Your task to perform on an android device: Go to accessibility settings Image 0: 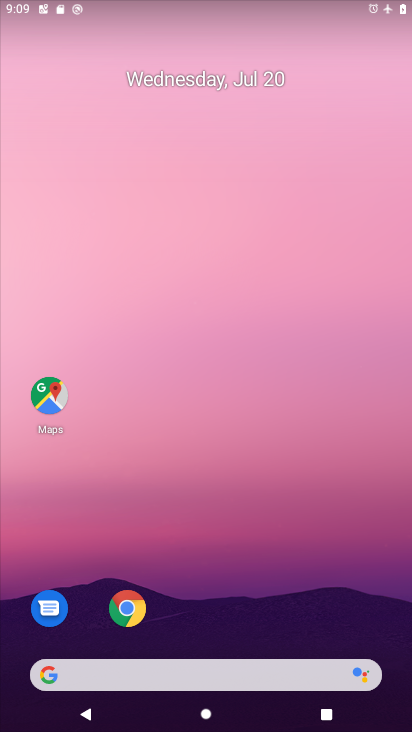
Step 0: drag from (211, 650) to (206, 180)
Your task to perform on an android device: Go to accessibility settings Image 1: 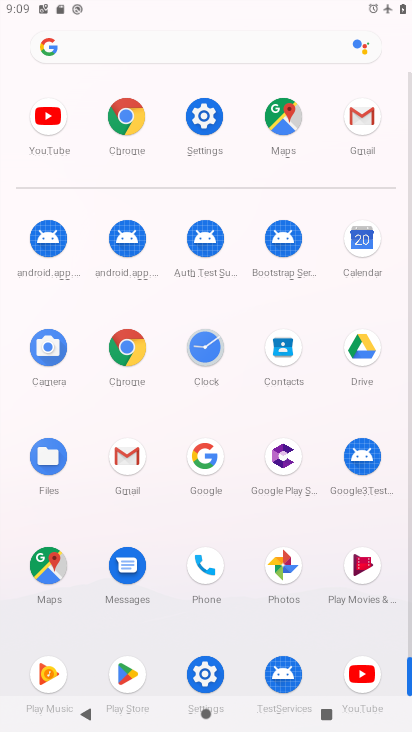
Step 1: click (209, 110)
Your task to perform on an android device: Go to accessibility settings Image 2: 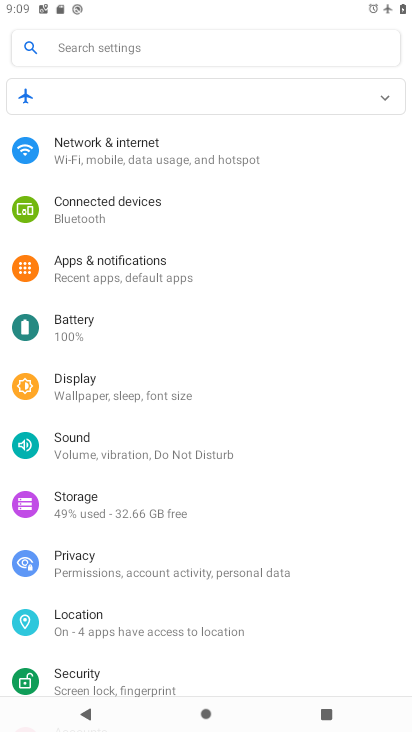
Step 2: drag from (178, 595) to (184, 260)
Your task to perform on an android device: Go to accessibility settings Image 3: 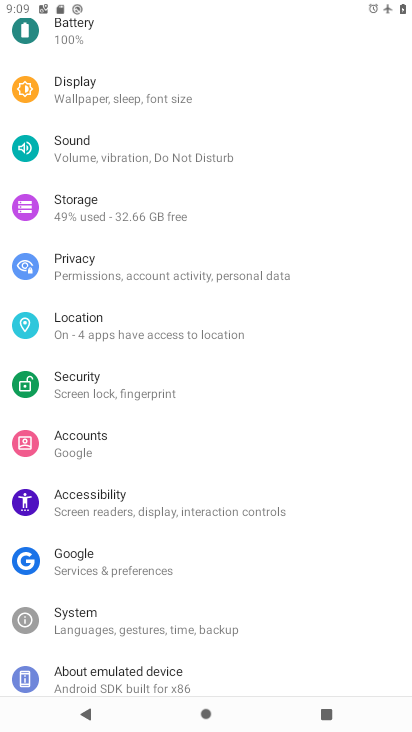
Step 3: click (123, 500)
Your task to perform on an android device: Go to accessibility settings Image 4: 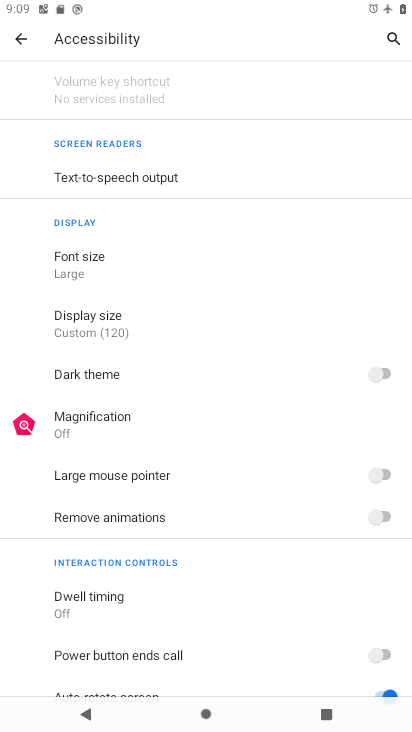
Step 4: task complete